Your task to perform on an android device: turn on showing notifications on the lock screen Image 0: 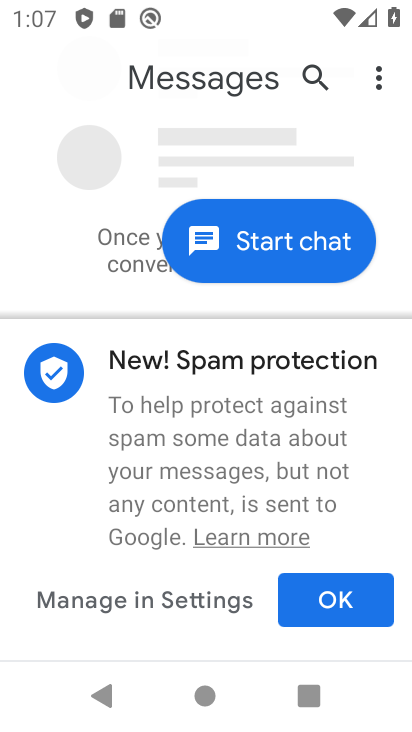
Step 0: press home button
Your task to perform on an android device: turn on showing notifications on the lock screen Image 1: 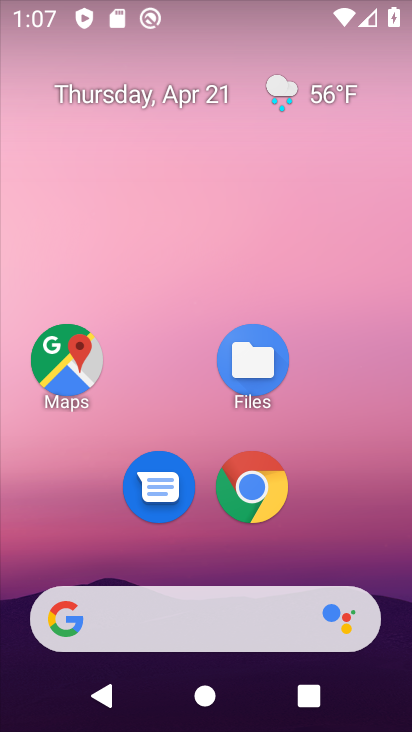
Step 1: drag from (392, 524) to (362, 176)
Your task to perform on an android device: turn on showing notifications on the lock screen Image 2: 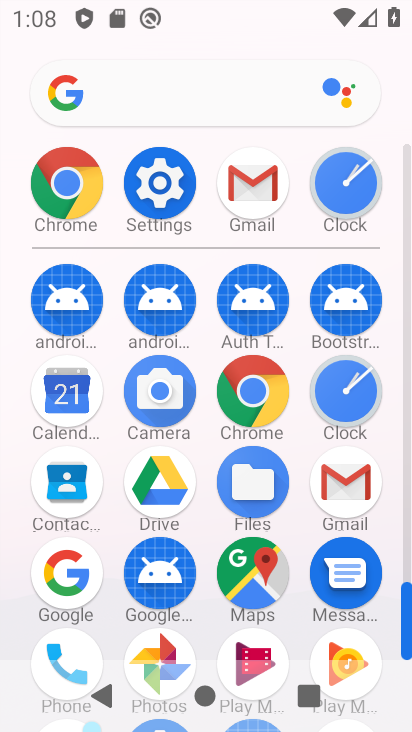
Step 2: click (139, 179)
Your task to perform on an android device: turn on showing notifications on the lock screen Image 3: 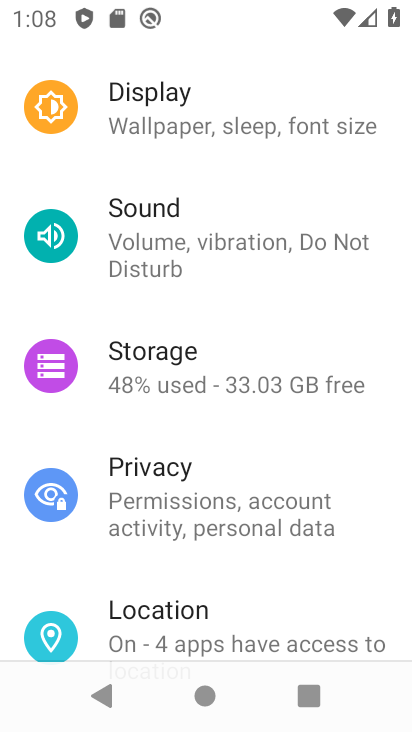
Step 3: drag from (305, 288) to (314, 580)
Your task to perform on an android device: turn on showing notifications on the lock screen Image 4: 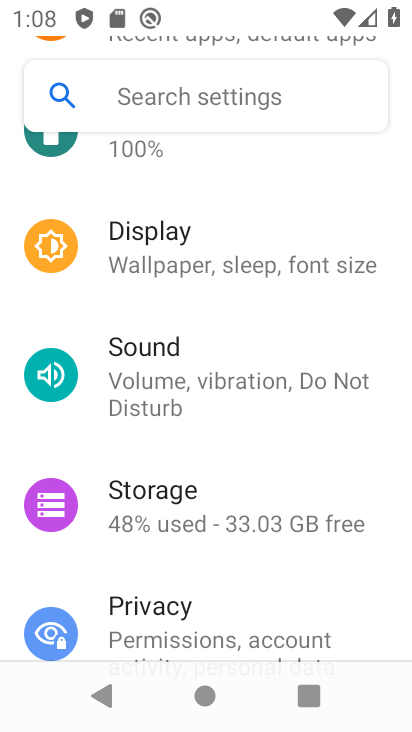
Step 4: drag from (308, 206) to (283, 537)
Your task to perform on an android device: turn on showing notifications on the lock screen Image 5: 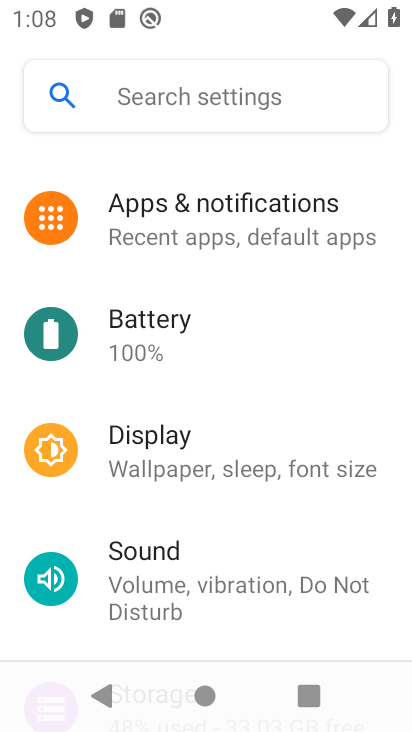
Step 5: click (240, 216)
Your task to perform on an android device: turn on showing notifications on the lock screen Image 6: 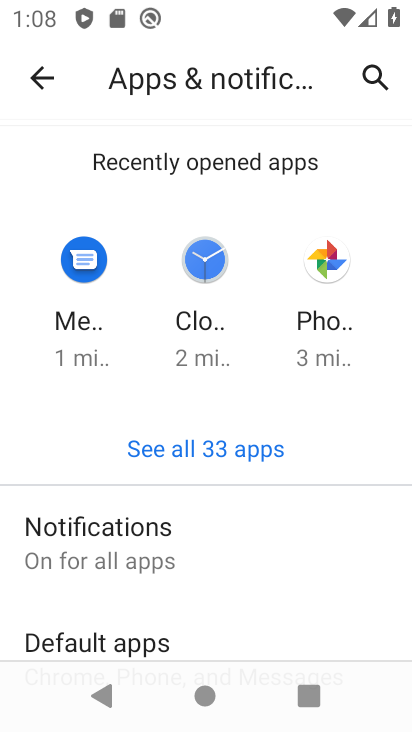
Step 6: click (127, 537)
Your task to perform on an android device: turn on showing notifications on the lock screen Image 7: 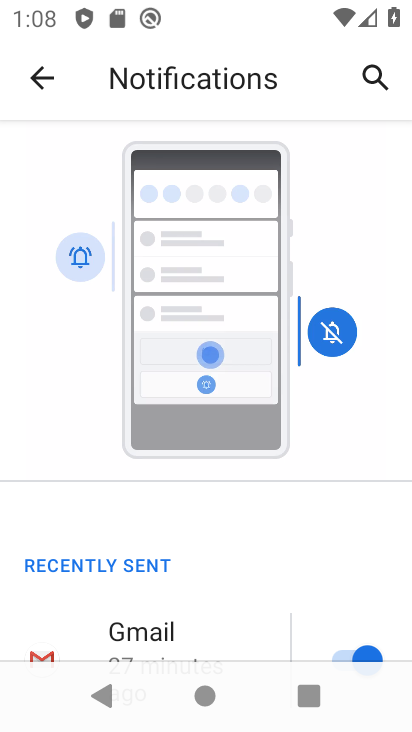
Step 7: drag from (220, 560) to (331, 256)
Your task to perform on an android device: turn on showing notifications on the lock screen Image 8: 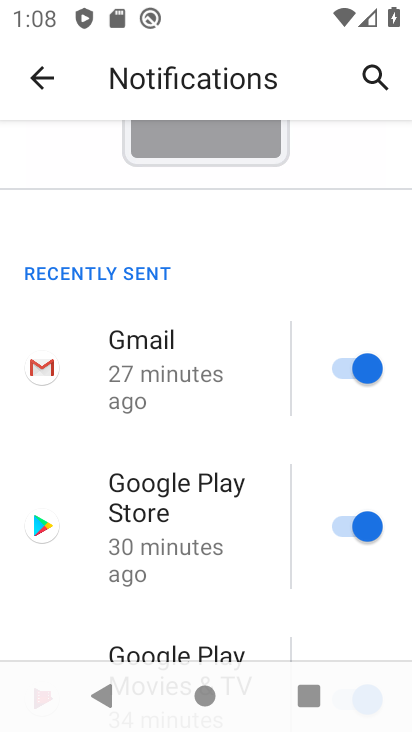
Step 8: drag from (252, 610) to (257, 277)
Your task to perform on an android device: turn on showing notifications on the lock screen Image 9: 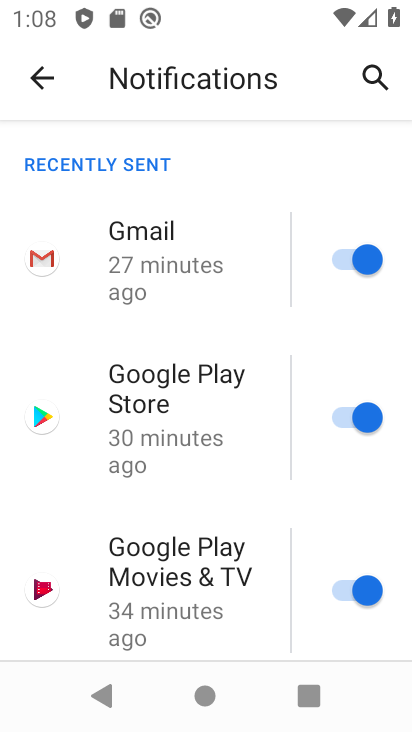
Step 9: drag from (279, 627) to (228, 234)
Your task to perform on an android device: turn on showing notifications on the lock screen Image 10: 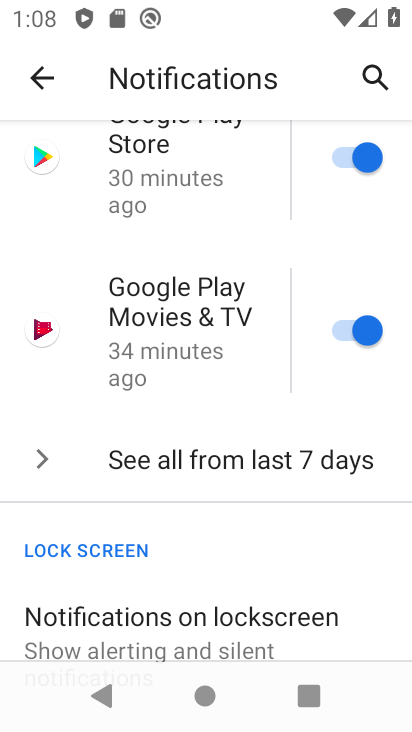
Step 10: drag from (249, 562) to (261, 168)
Your task to perform on an android device: turn on showing notifications on the lock screen Image 11: 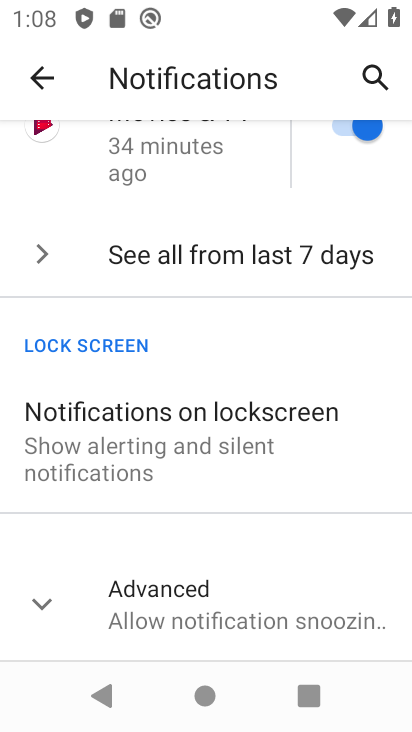
Step 11: click (163, 436)
Your task to perform on an android device: turn on showing notifications on the lock screen Image 12: 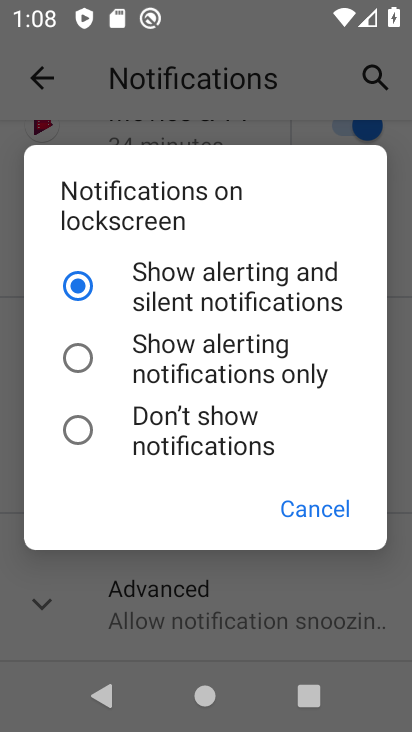
Step 12: task complete